Your task to perform on an android device: turn off airplane mode Image 0: 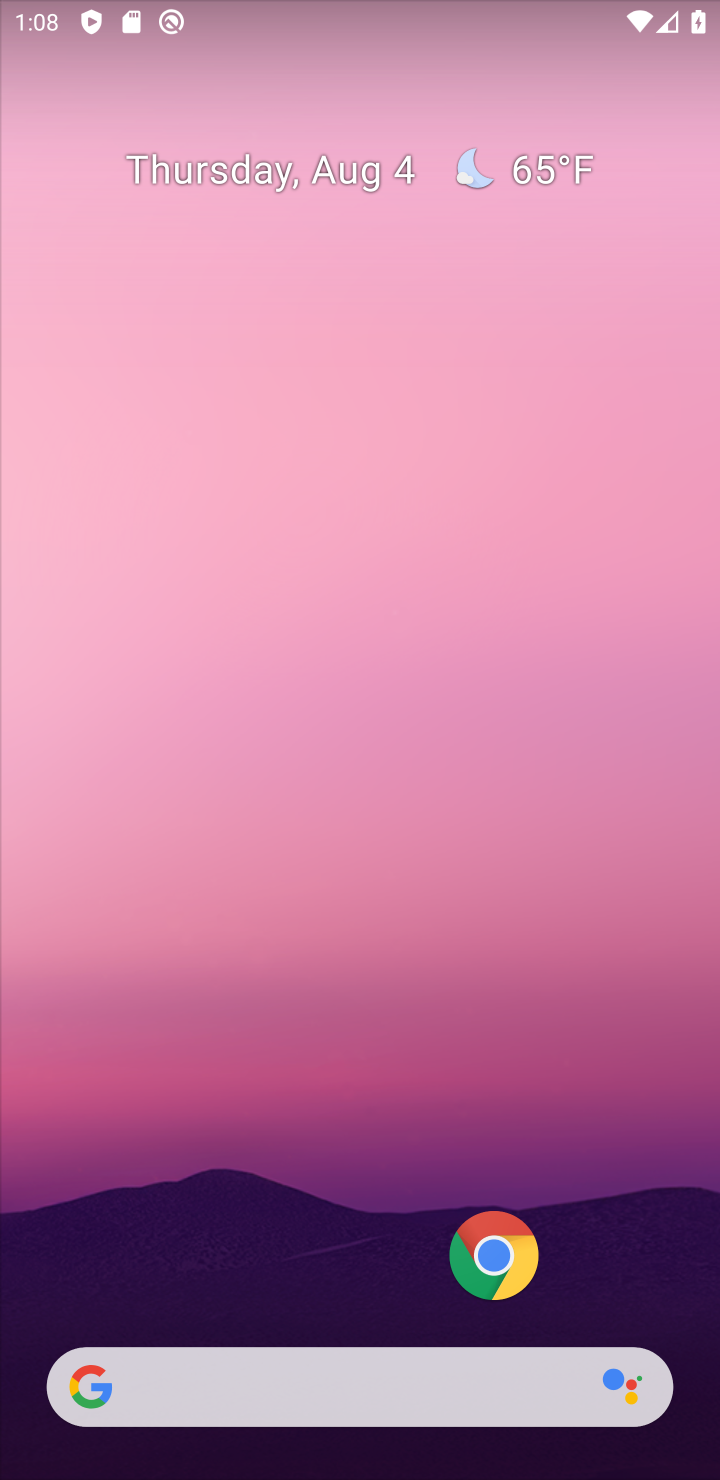
Step 0: drag from (318, 761) to (398, 85)
Your task to perform on an android device: turn off airplane mode Image 1: 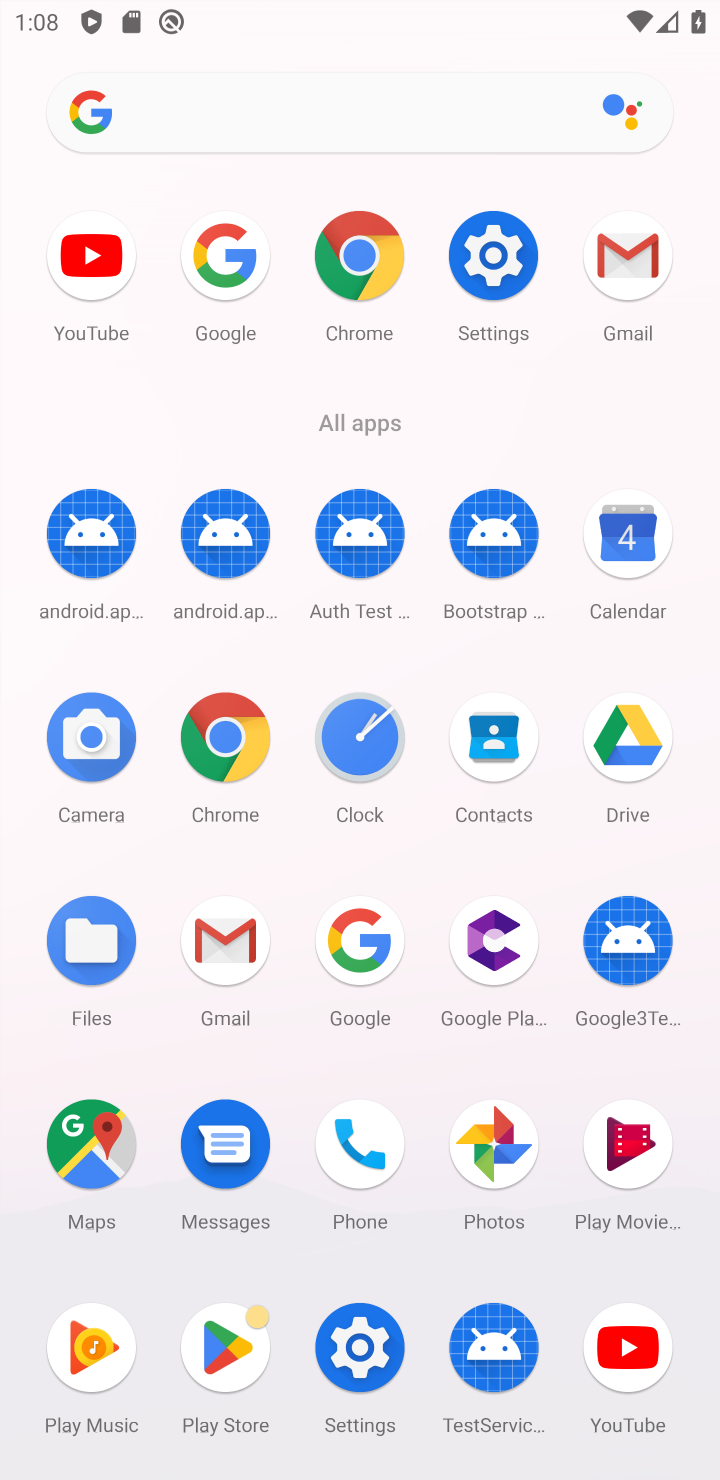
Step 1: click (505, 276)
Your task to perform on an android device: turn off airplane mode Image 2: 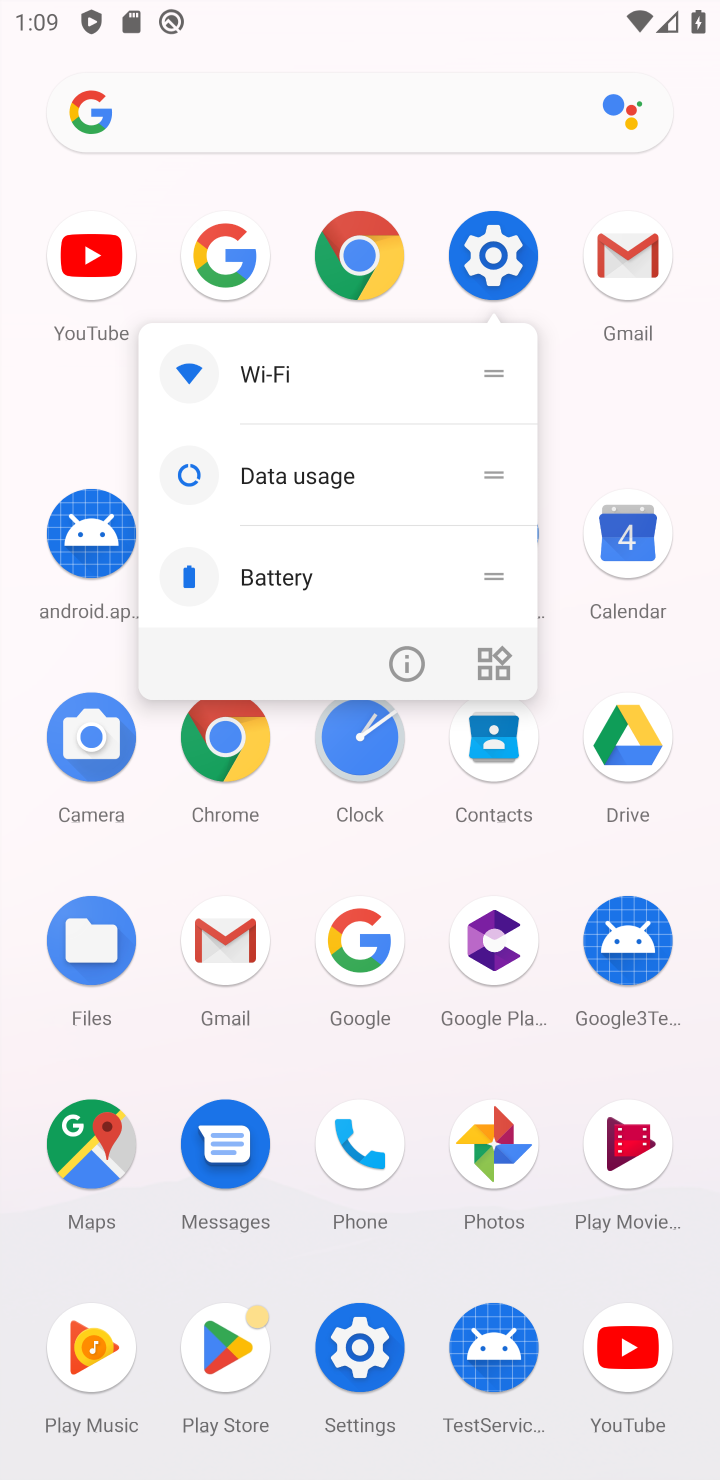
Step 2: click (507, 269)
Your task to perform on an android device: turn off airplane mode Image 3: 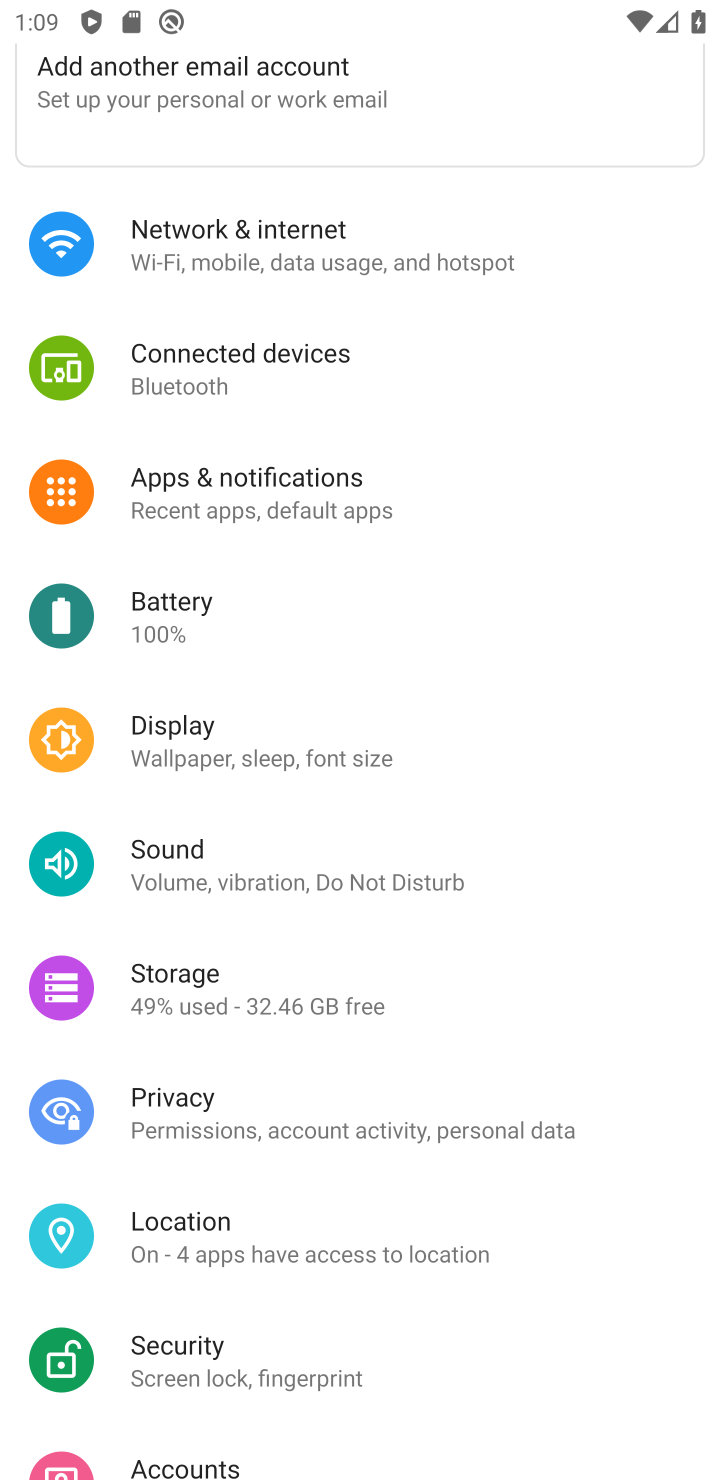
Step 3: click (297, 264)
Your task to perform on an android device: turn off airplane mode Image 4: 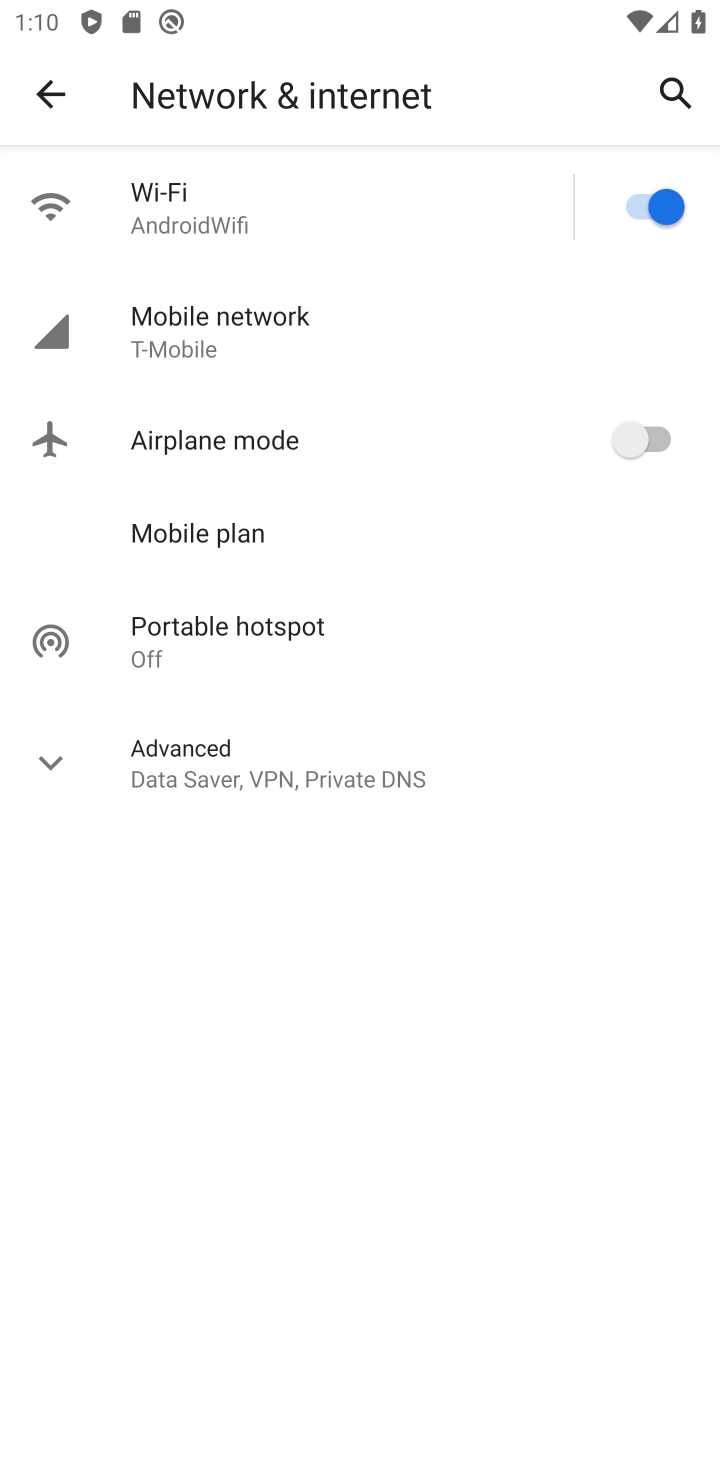
Step 4: task complete